Your task to perform on an android device: Toggle the flashlight Image 0: 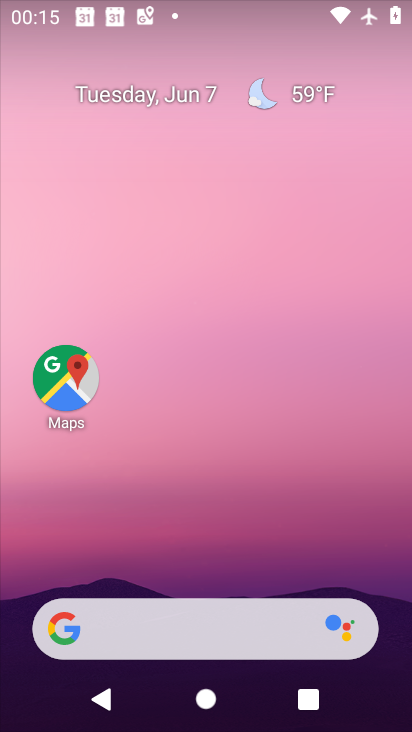
Step 0: drag from (227, 304) to (215, 63)
Your task to perform on an android device: Toggle the flashlight Image 1: 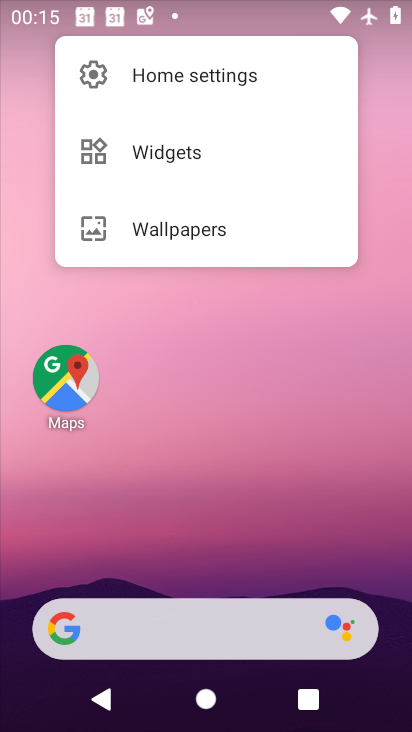
Step 1: click (188, 472)
Your task to perform on an android device: Toggle the flashlight Image 2: 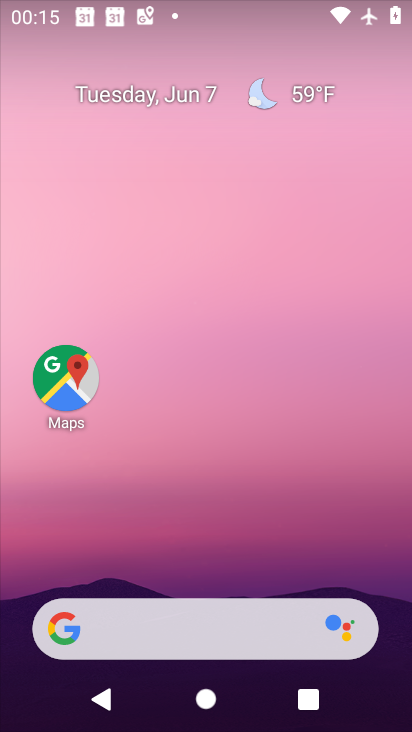
Step 2: drag from (199, 582) to (182, 99)
Your task to perform on an android device: Toggle the flashlight Image 3: 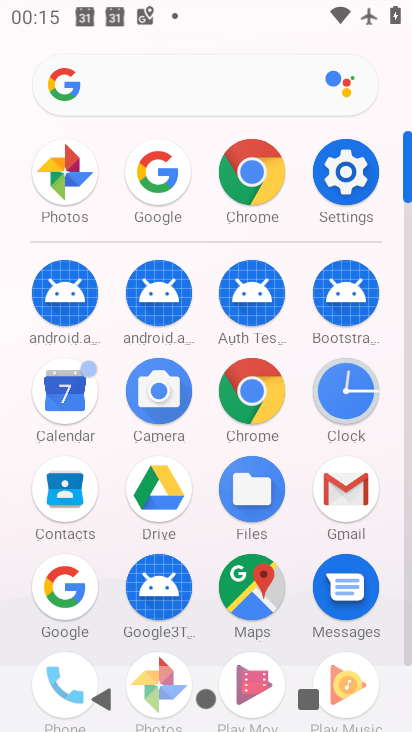
Step 3: click (342, 175)
Your task to perform on an android device: Toggle the flashlight Image 4: 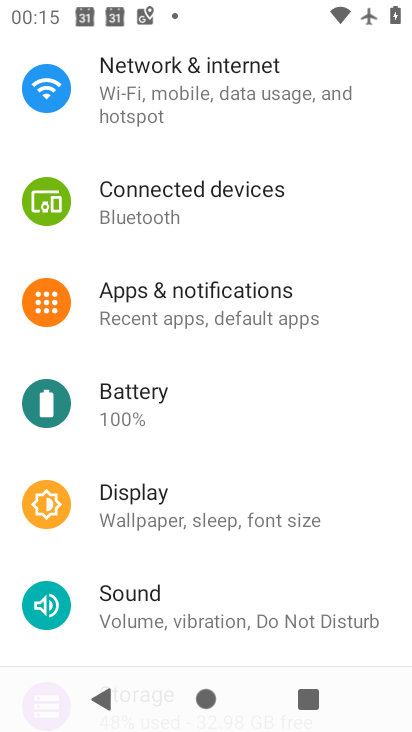
Step 4: drag from (186, 87) to (225, 424)
Your task to perform on an android device: Toggle the flashlight Image 5: 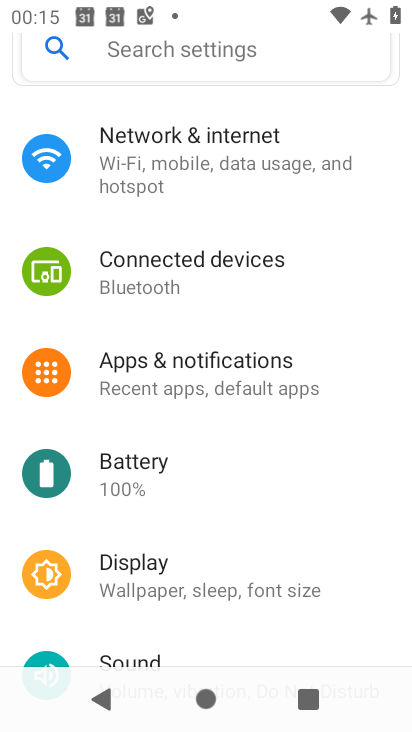
Step 5: click (175, 53)
Your task to perform on an android device: Toggle the flashlight Image 6: 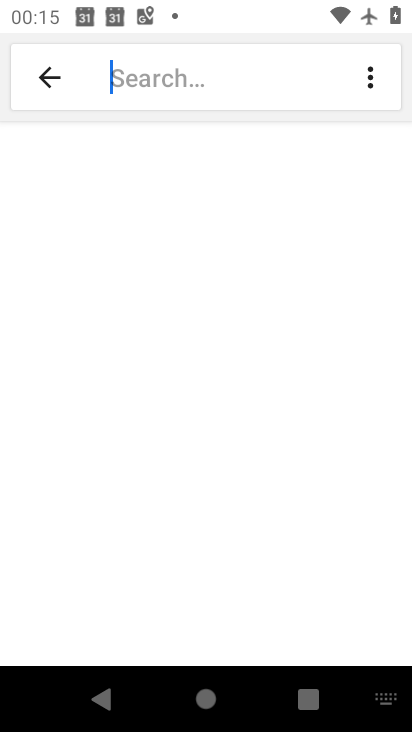
Step 6: type "flash"
Your task to perform on an android device: Toggle the flashlight Image 7: 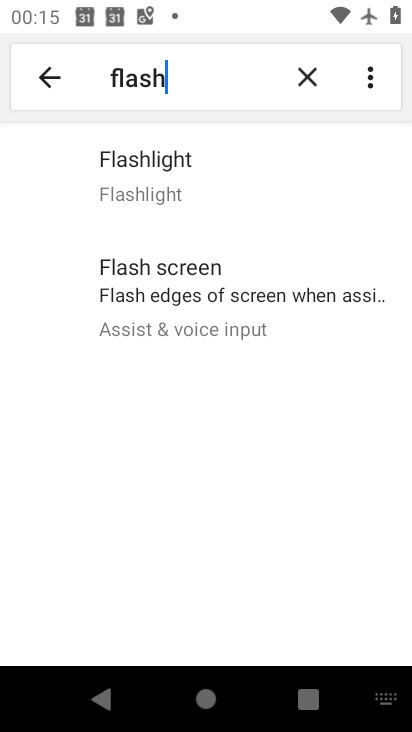
Step 7: task complete